Your task to perform on an android device: What is the news today? Image 0: 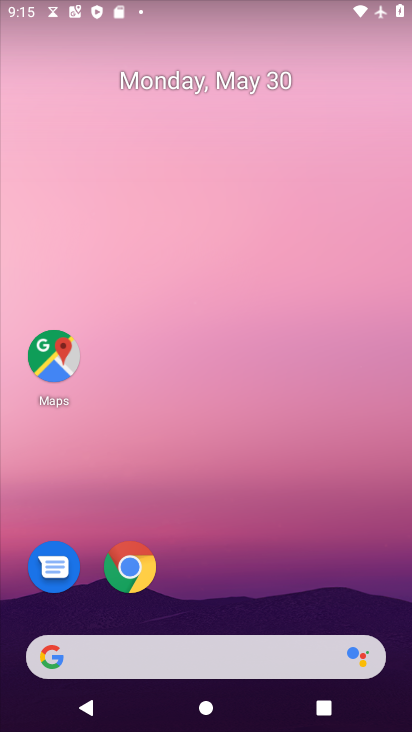
Step 0: drag from (241, 609) to (256, 108)
Your task to perform on an android device: What is the news today? Image 1: 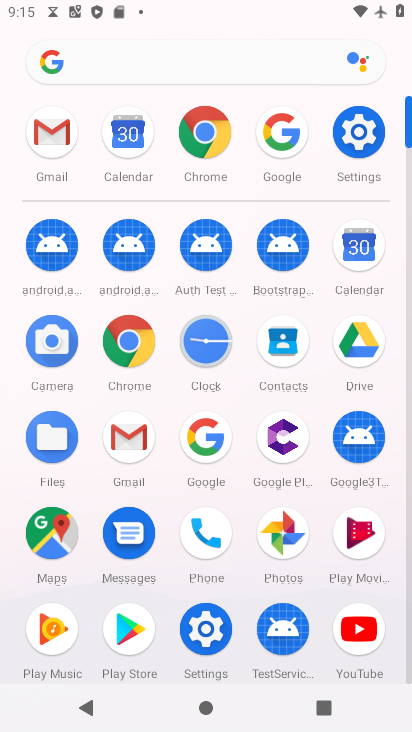
Step 1: click (207, 151)
Your task to perform on an android device: What is the news today? Image 2: 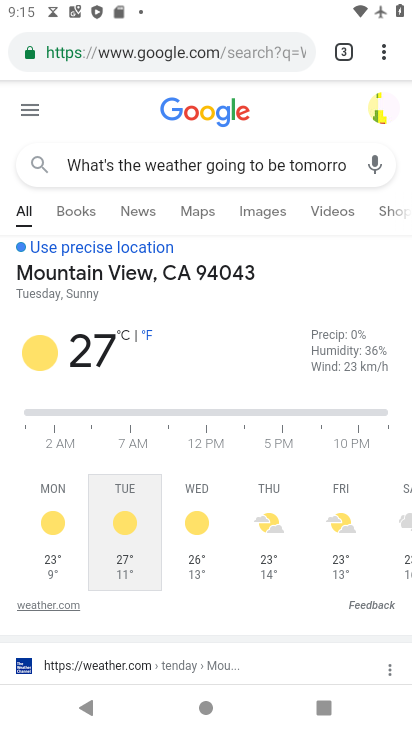
Step 2: click (220, 165)
Your task to perform on an android device: What is the news today? Image 3: 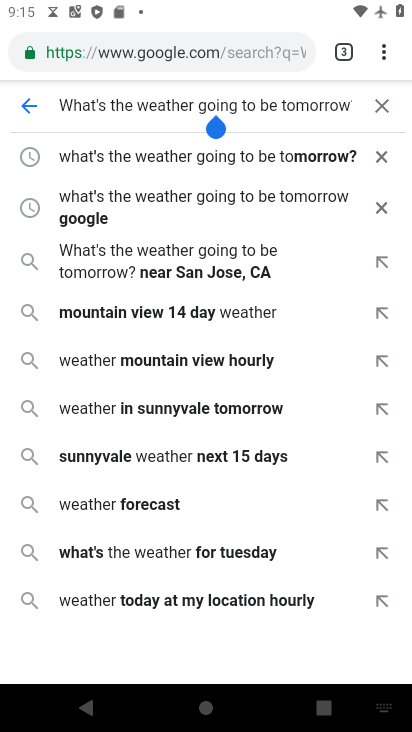
Step 3: click (384, 112)
Your task to perform on an android device: What is the news today? Image 4: 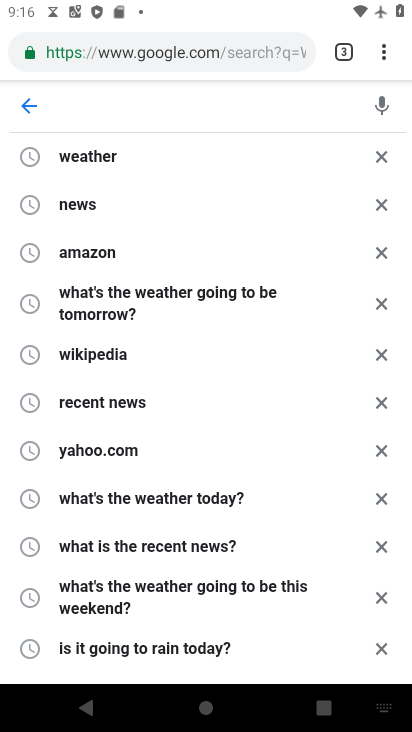
Step 4: type "What is the news today?"
Your task to perform on an android device: What is the news today? Image 5: 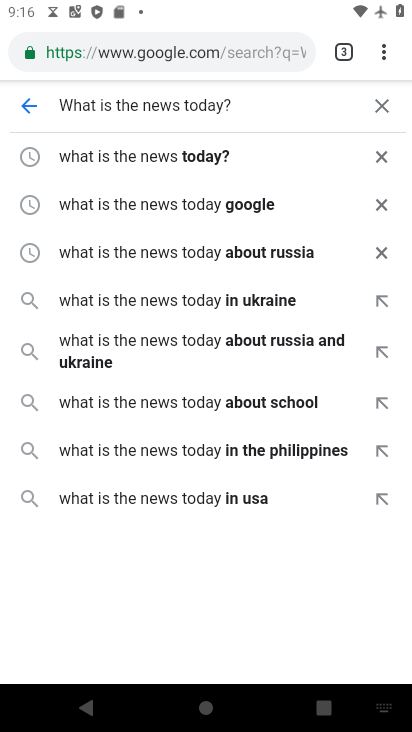
Step 5: click (196, 153)
Your task to perform on an android device: What is the news today? Image 6: 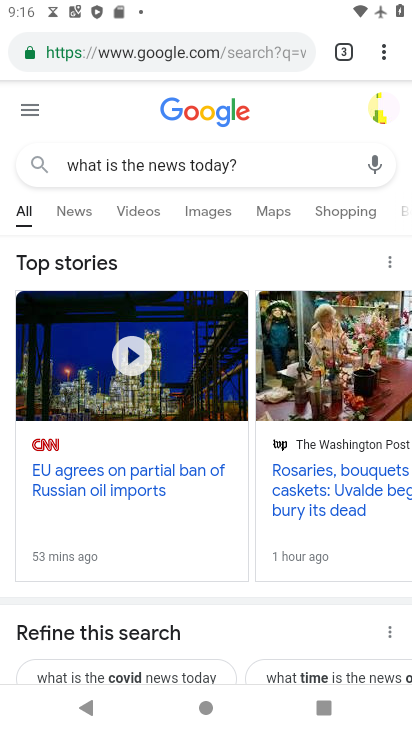
Step 6: task complete